Your task to perform on an android device: What is the capital of France? Image 0: 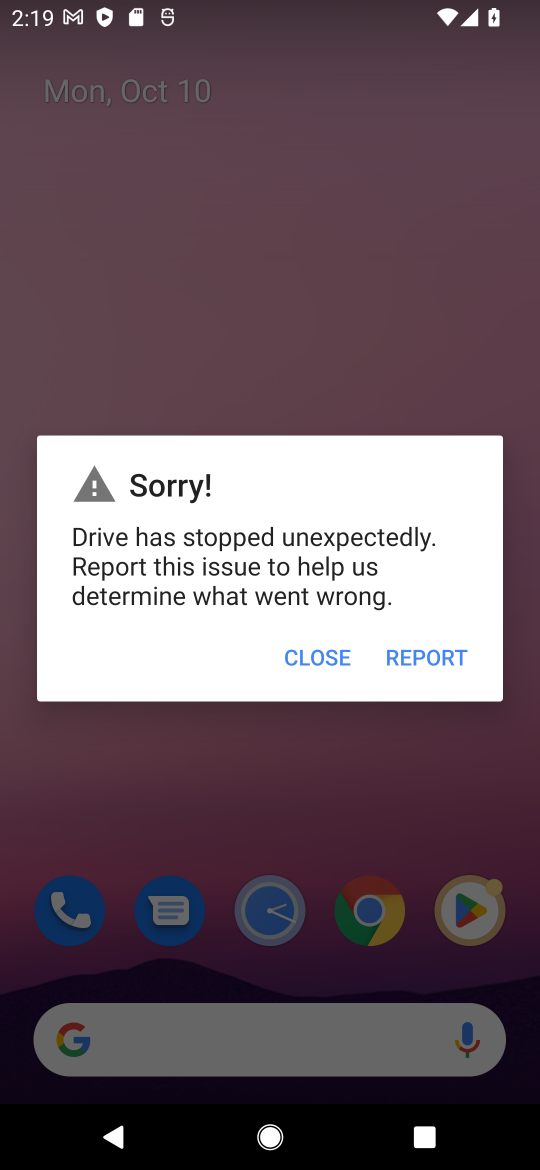
Step 0: click (337, 657)
Your task to perform on an android device: What is the capital of France? Image 1: 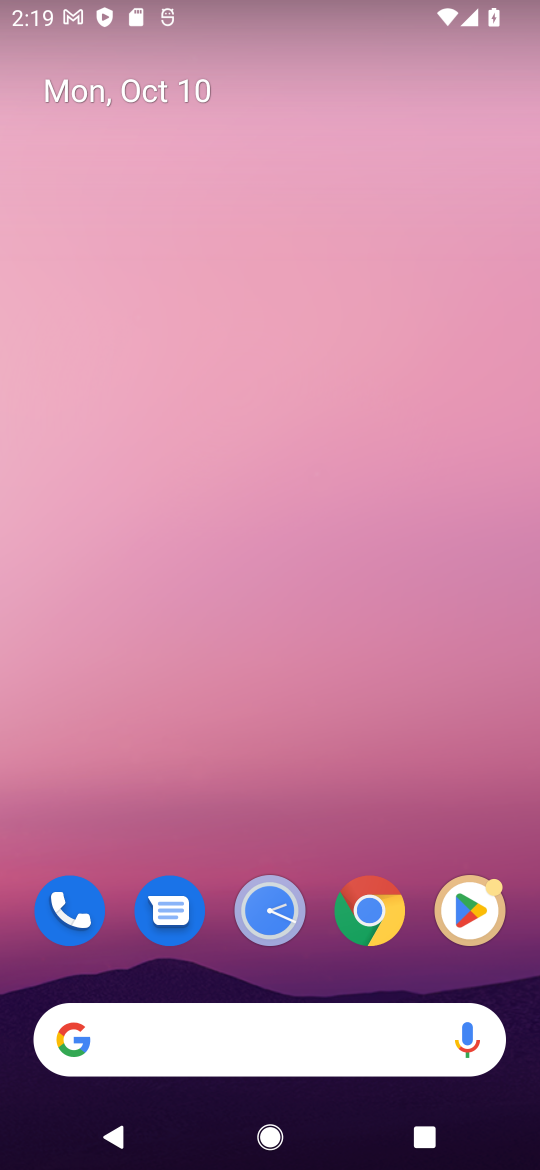
Step 1: click (373, 930)
Your task to perform on an android device: What is the capital of France? Image 2: 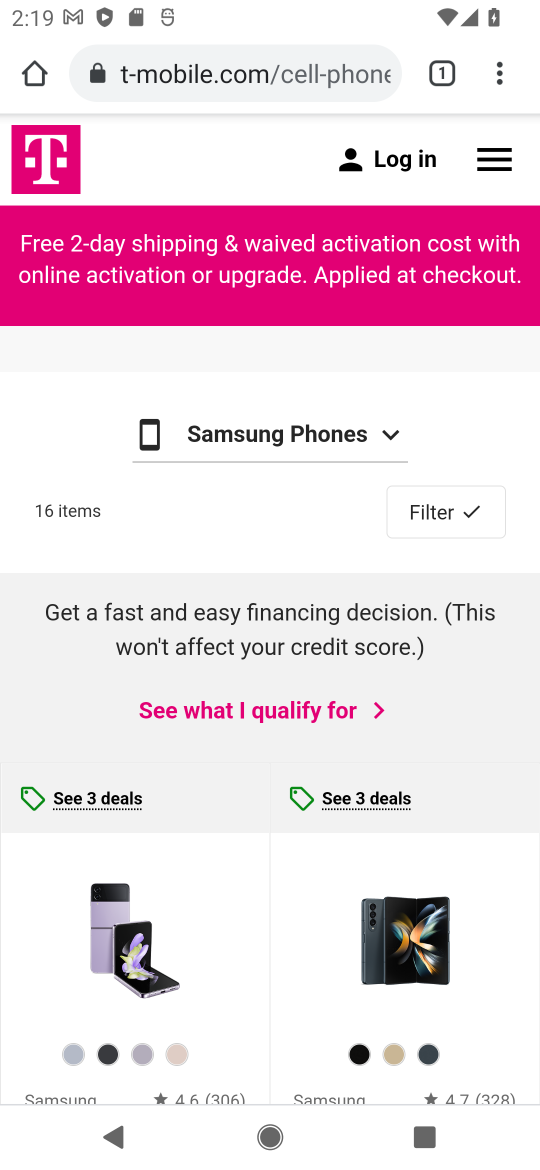
Step 2: click (168, 75)
Your task to perform on an android device: What is the capital of France? Image 3: 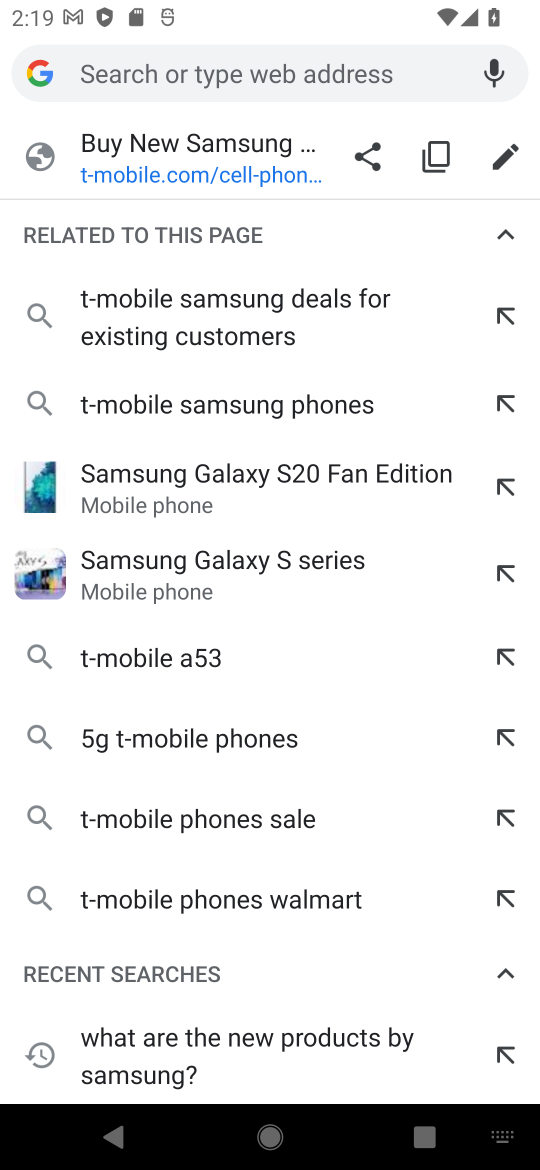
Step 3: type "capital of france"
Your task to perform on an android device: What is the capital of France? Image 4: 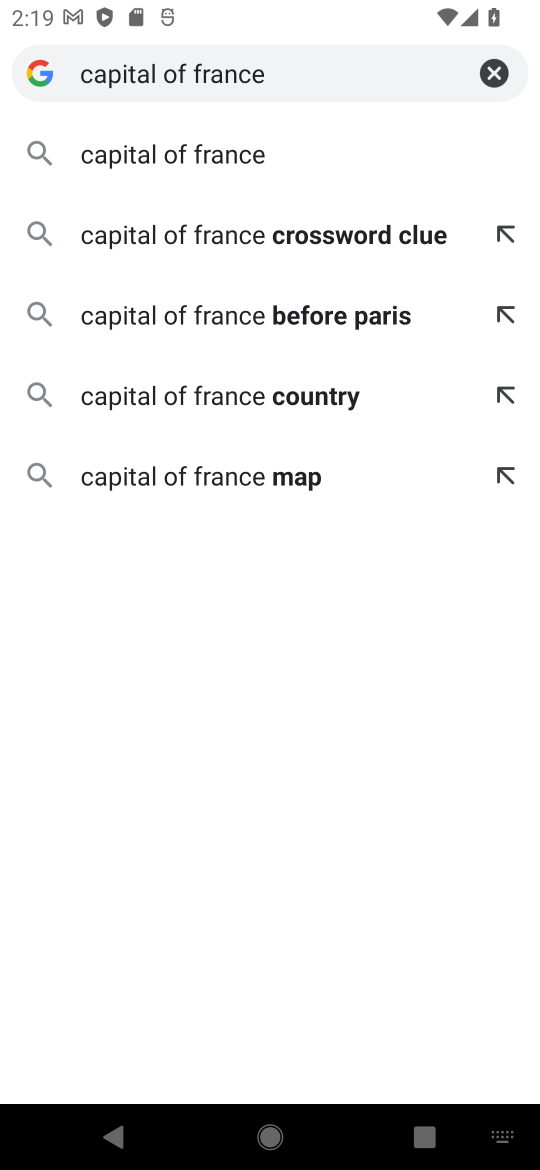
Step 4: click (304, 77)
Your task to perform on an android device: What is the capital of France? Image 5: 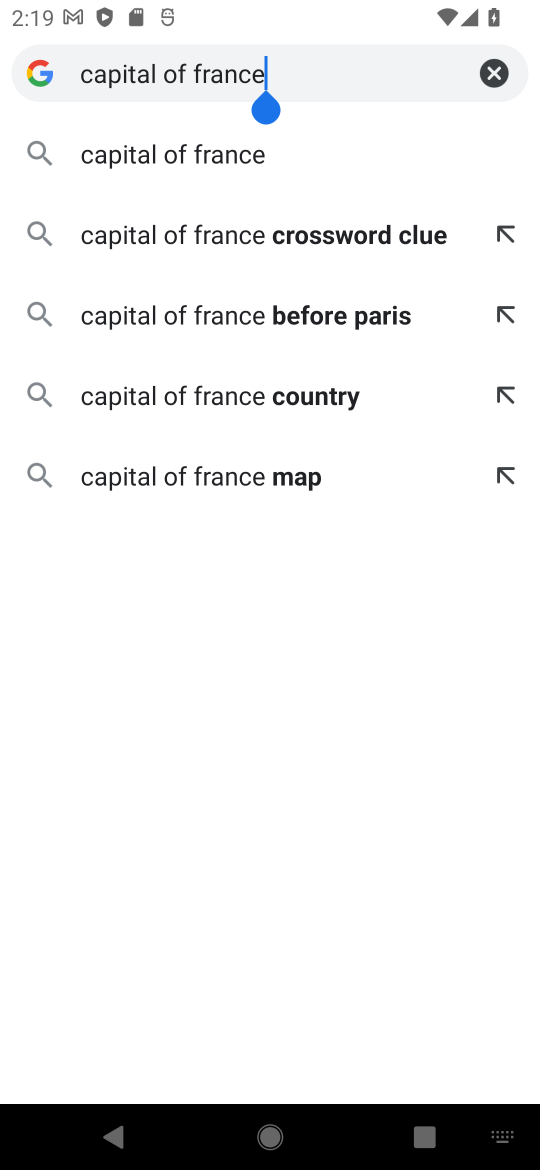
Step 5: click (222, 178)
Your task to perform on an android device: What is the capital of France? Image 6: 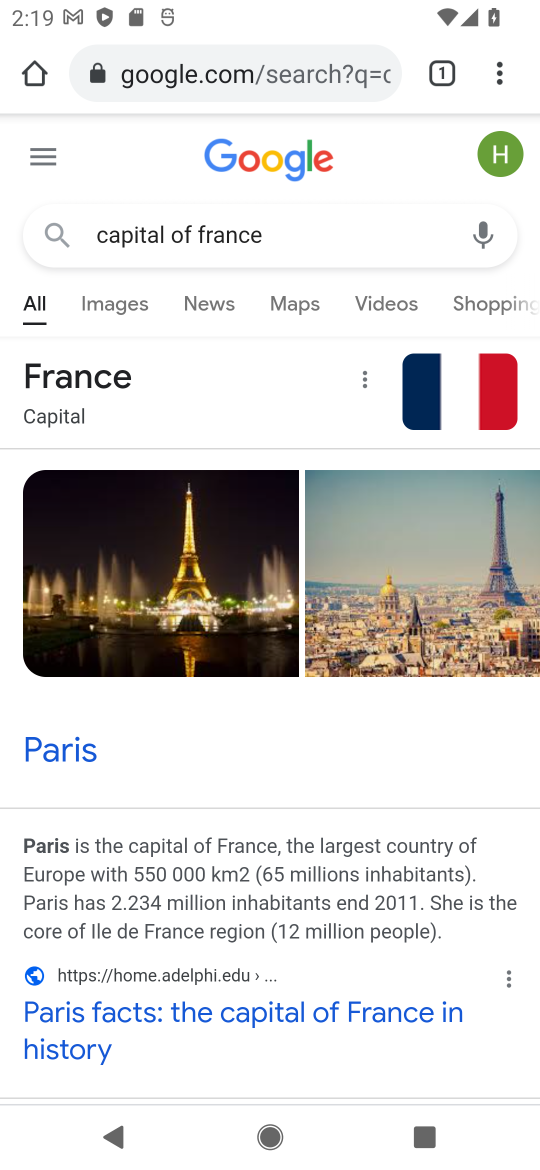
Step 6: task complete